Your task to perform on an android device: open sync settings in chrome Image 0: 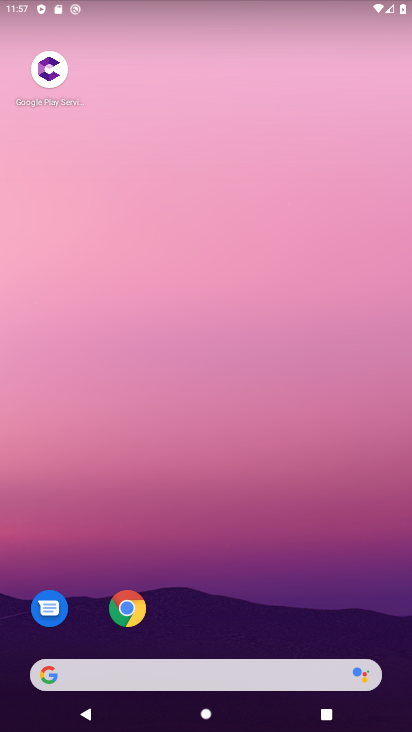
Step 0: click (124, 601)
Your task to perform on an android device: open sync settings in chrome Image 1: 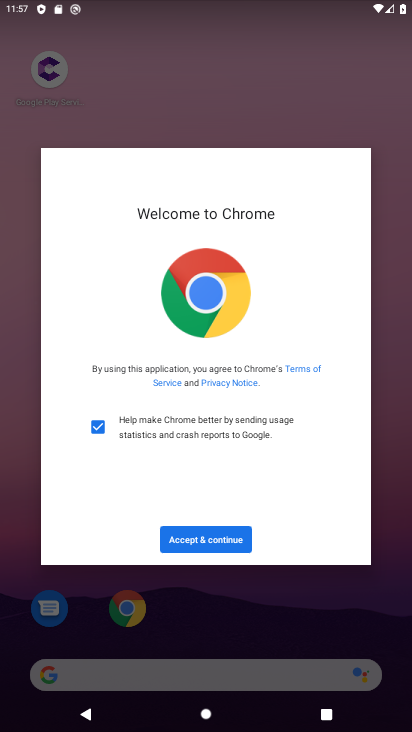
Step 1: click (193, 538)
Your task to perform on an android device: open sync settings in chrome Image 2: 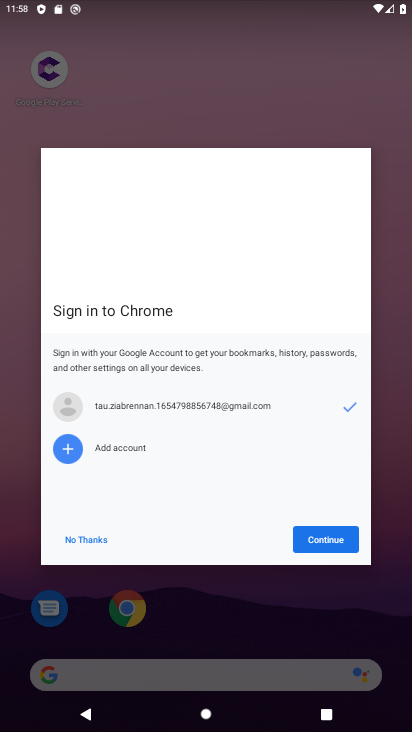
Step 2: click (306, 548)
Your task to perform on an android device: open sync settings in chrome Image 3: 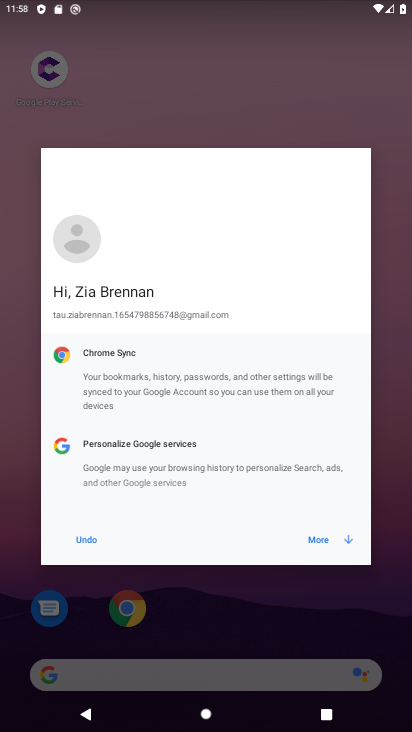
Step 3: click (330, 557)
Your task to perform on an android device: open sync settings in chrome Image 4: 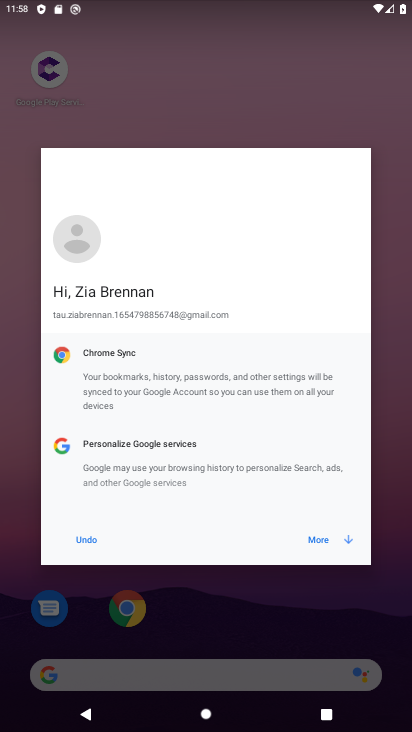
Step 4: click (323, 538)
Your task to perform on an android device: open sync settings in chrome Image 5: 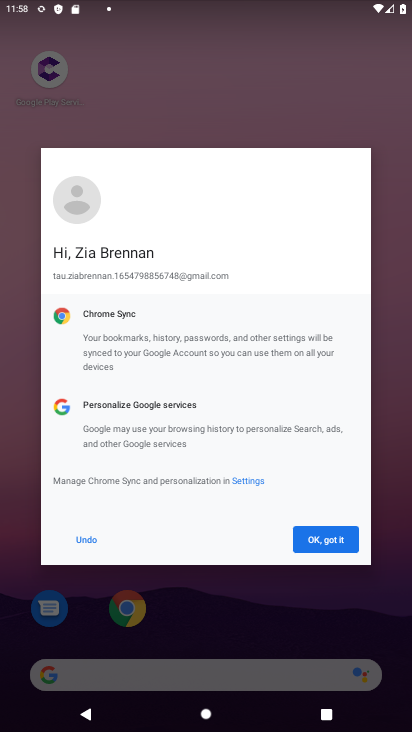
Step 5: click (323, 538)
Your task to perform on an android device: open sync settings in chrome Image 6: 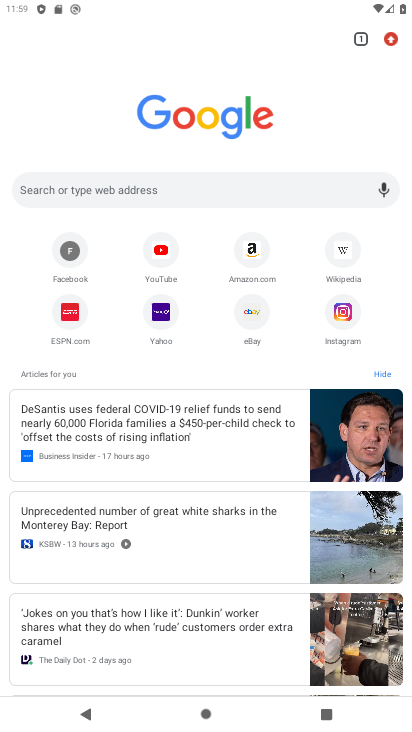
Step 6: click (391, 33)
Your task to perform on an android device: open sync settings in chrome Image 7: 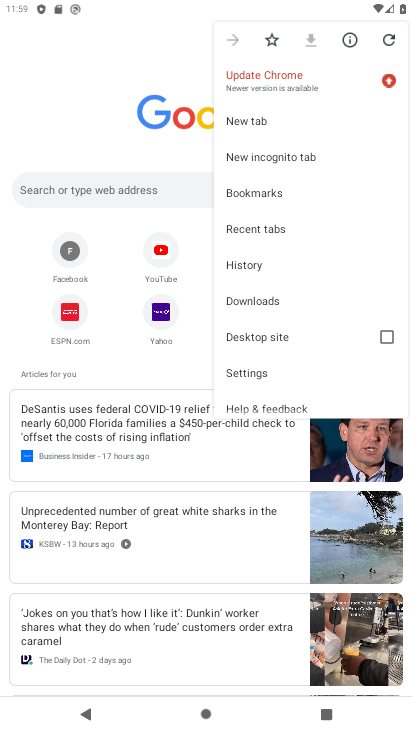
Step 7: click (268, 85)
Your task to perform on an android device: open sync settings in chrome Image 8: 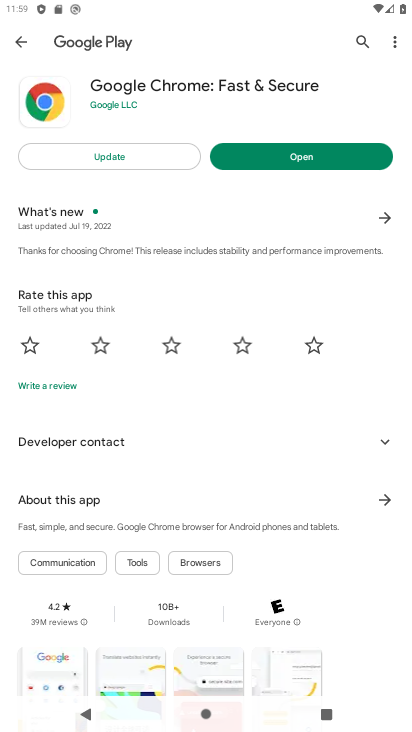
Step 8: click (246, 162)
Your task to perform on an android device: open sync settings in chrome Image 9: 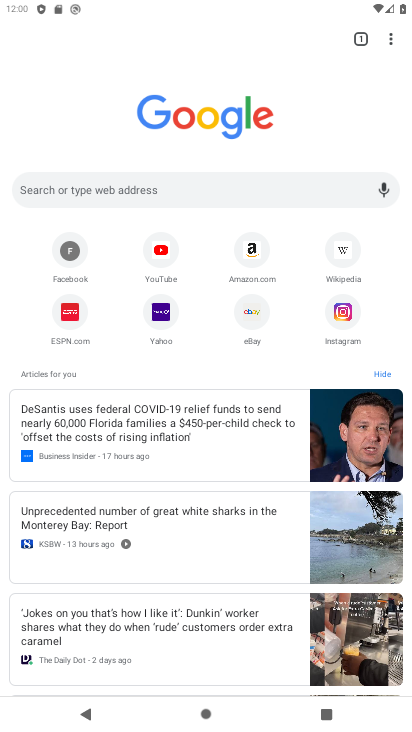
Step 9: click (400, 37)
Your task to perform on an android device: open sync settings in chrome Image 10: 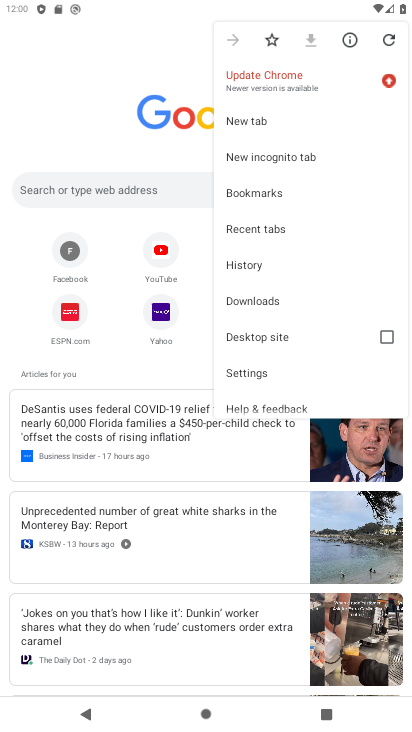
Step 10: click (260, 372)
Your task to perform on an android device: open sync settings in chrome Image 11: 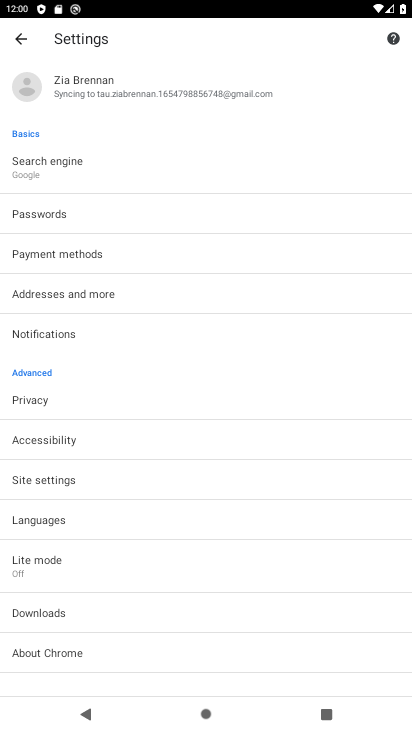
Step 11: click (140, 92)
Your task to perform on an android device: open sync settings in chrome Image 12: 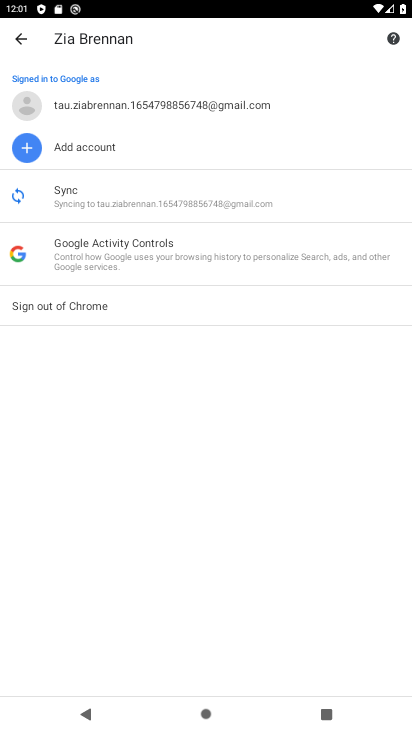
Step 12: click (89, 202)
Your task to perform on an android device: open sync settings in chrome Image 13: 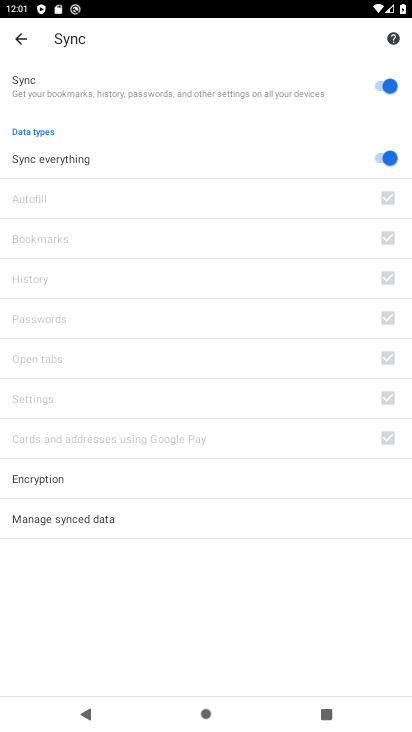
Step 13: task complete